Your task to perform on an android device: Open the calendar app, open the side menu, and click the "Day" option Image 0: 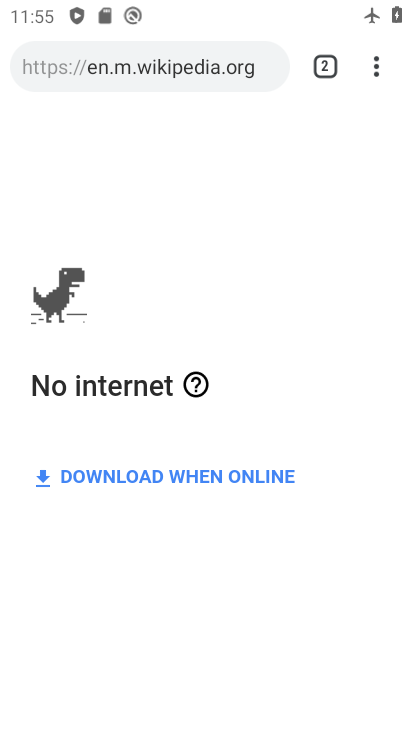
Step 0: press home button
Your task to perform on an android device: Open the calendar app, open the side menu, and click the "Day" option Image 1: 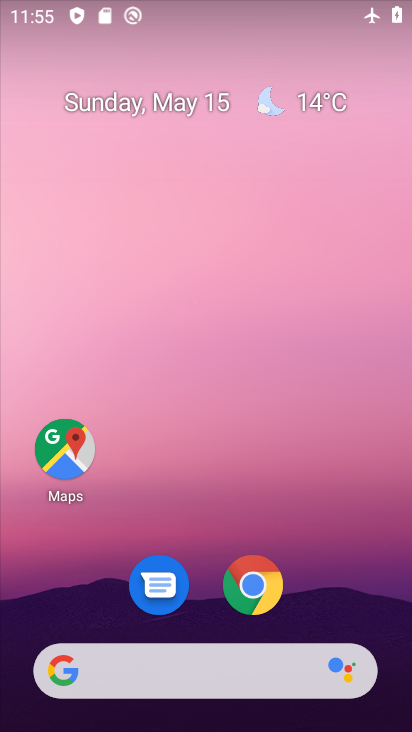
Step 1: drag from (253, 473) to (272, 17)
Your task to perform on an android device: Open the calendar app, open the side menu, and click the "Day" option Image 2: 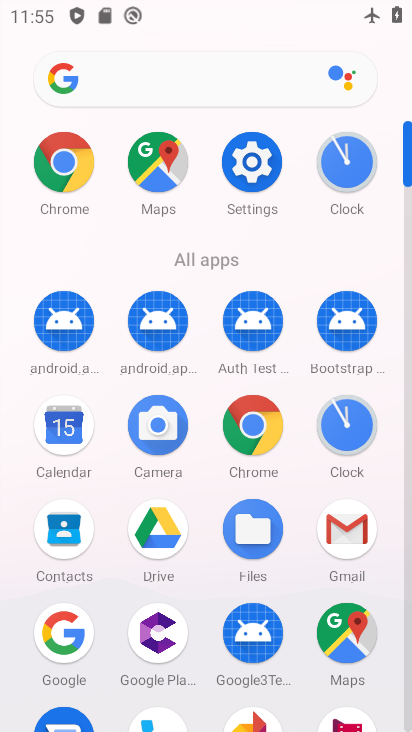
Step 2: click (71, 426)
Your task to perform on an android device: Open the calendar app, open the side menu, and click the "Day" option Image 3: 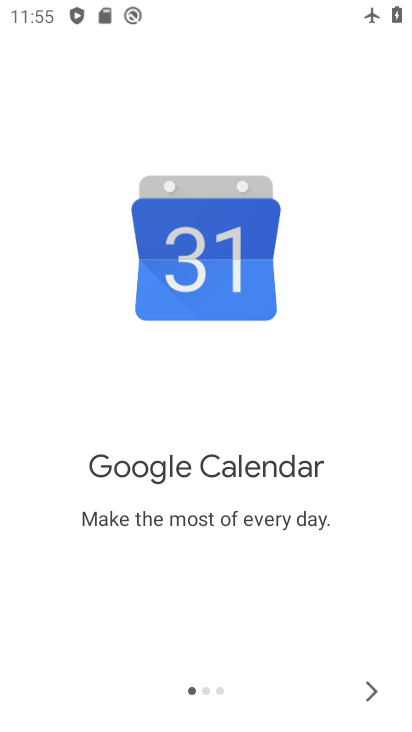
Step 3: click (364, 685)
Your task to perform on an android device: Open the calendar app, open the side menu, and click the "Day" option Image 4: 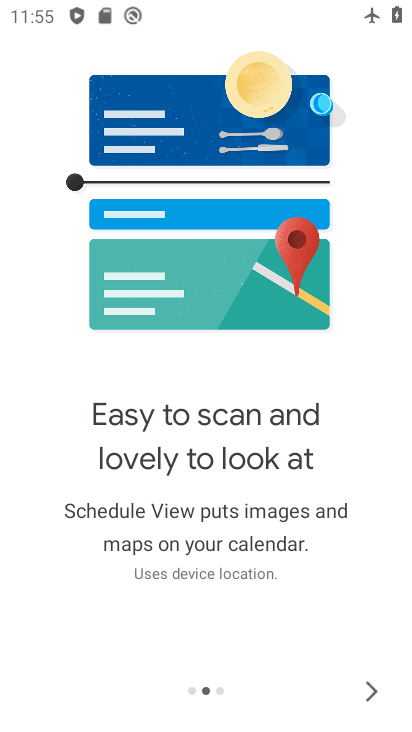
Step 4: click (364, 685)
Your task to perform on an android device: Open the calendar app, open the side menu, and click the "Day" option Image 5: 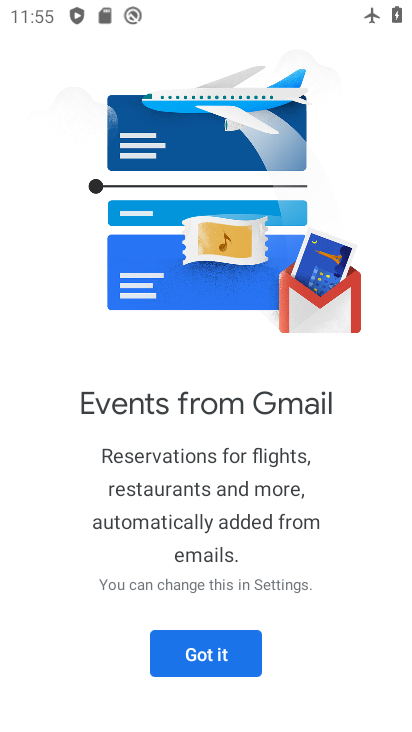
Step 5: click (239, 654)
Your task to perform on an android device: Open the calendar app, open the side menu, and click the "Day" option Image 6: 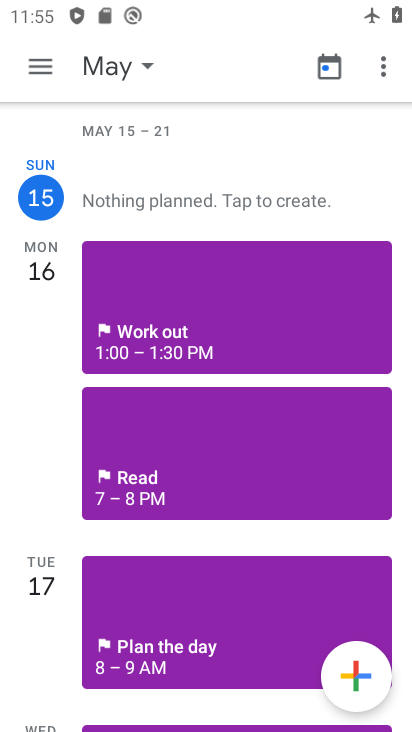
Step 6: click (39, 51)
Your task to perform on an android device: Open the calendar app, open the side menu, and click the "Day" option Image 7: 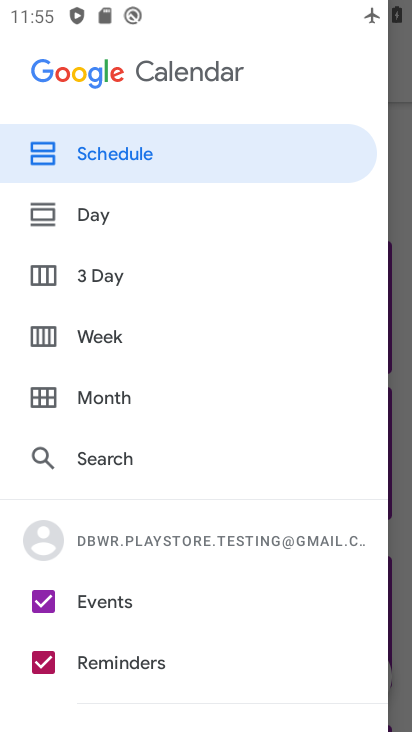
Step 7: click (40, 209)
Your task to perform on an android device: Open the calendar app, open the side menu, and click the "Day" option Image 8: 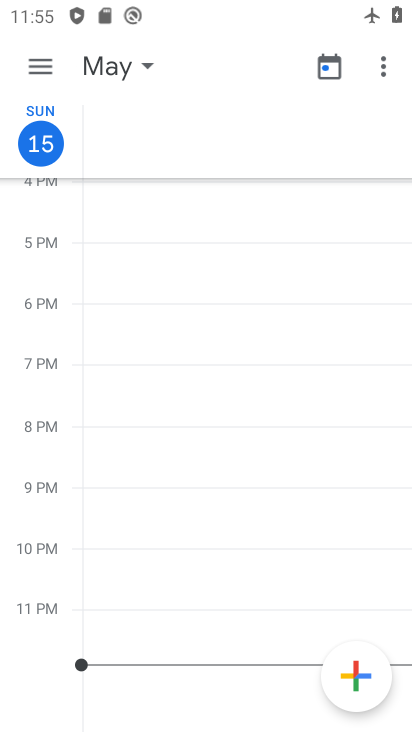
Step 8: task complete